Your task to perform on an android device: delete browsing data in the chrome app Image 0: 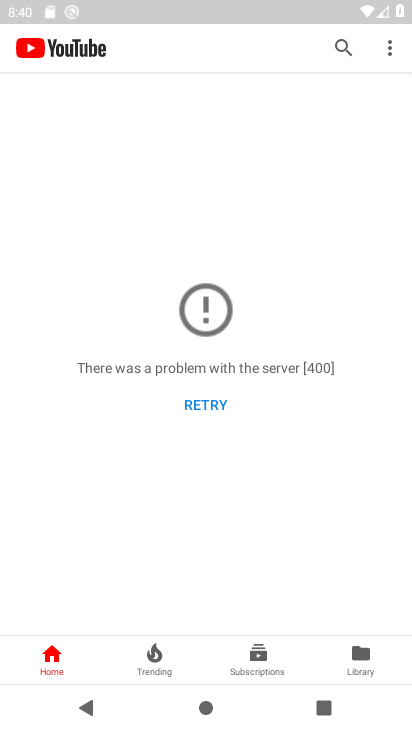
Step 0: press home button
Your task to perform on an android device: delete browsing data in the chrome app Image 1: 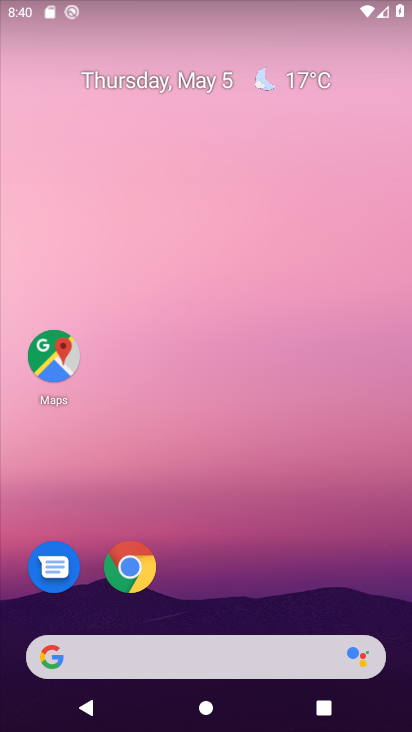
Step 1: drag from (230, 562) to (288, 20)
Your task to perform on an android device: delete browsing data in the chrome app Image 2: 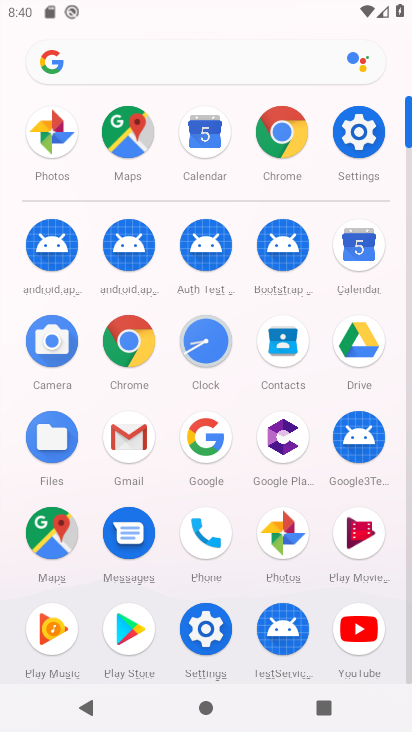
Step 2: click (278, 127)
Your task to perform on an android device: delete browsing data in the chrome app Image 3: 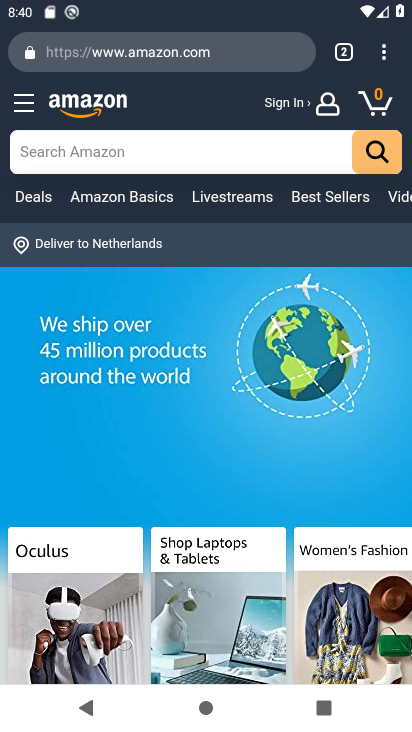
Step 3: drag from (383, 52) to (227, 285)
Your task to perform on an android device: delete browsing data in the chrome app Image 4: 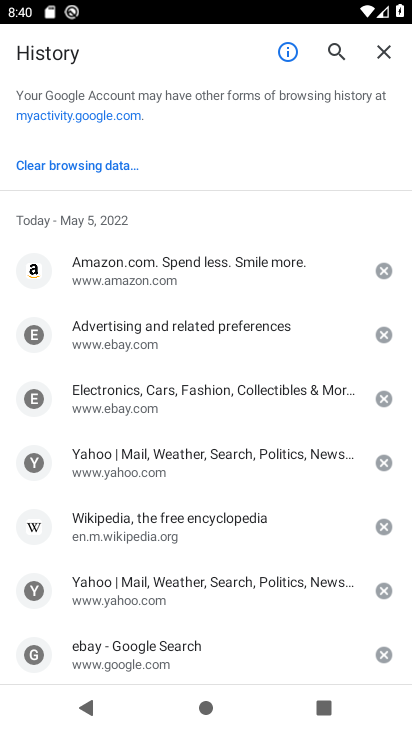
Step 4: click (124, 162)
Your task to perform on an android device: delete browsing data in the chrome app Image 5: 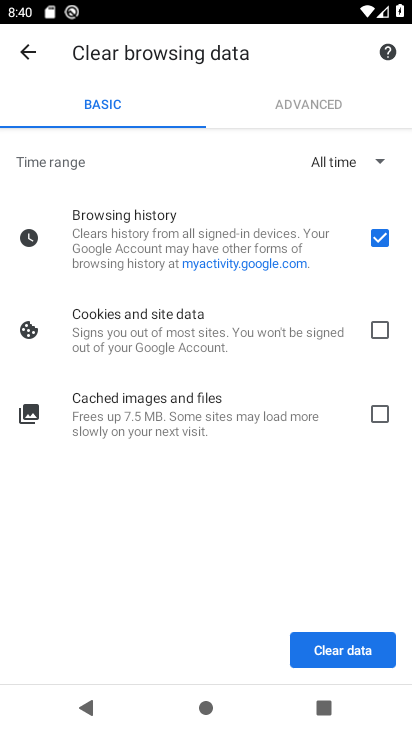
Step 5: click (381, 325)
Your task to perform on an android device: delete browsing data in the chrome app Image 6: 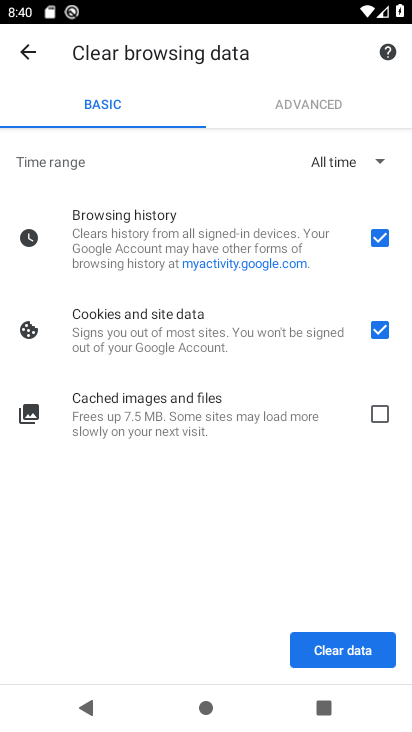
Step 6: click (375, 410)
Your task to perform on an android device: delete browsing data in the chrome app Image 7: 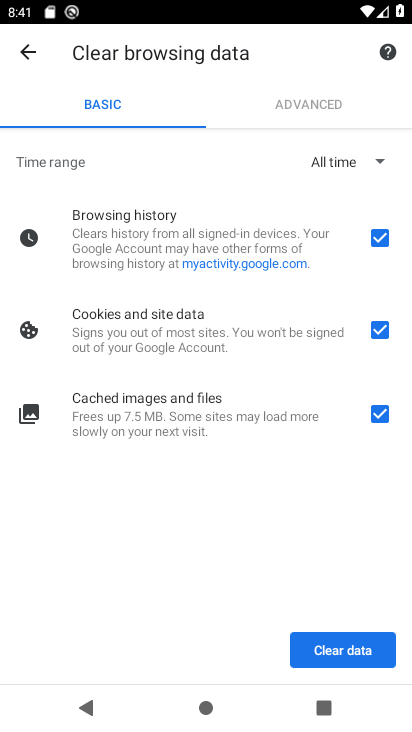
Step 7: click (342, 646)
Your task to perform on an android device: delete browsing data in the chrome app Image 8: 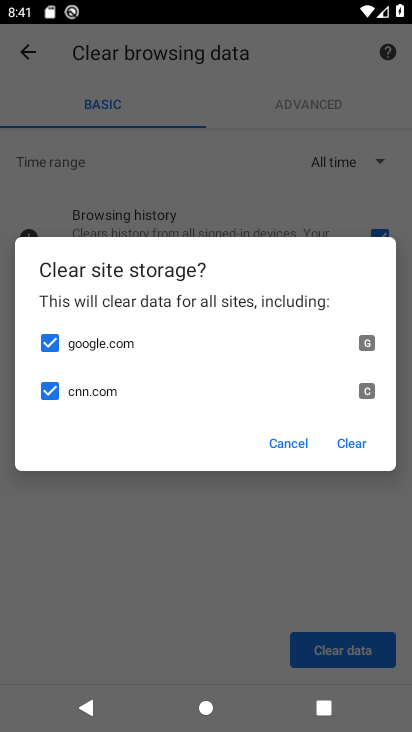
Step 8: click (350, 442)
Your task to perform on an android device: delete browsing data in the chrome app Image 9: 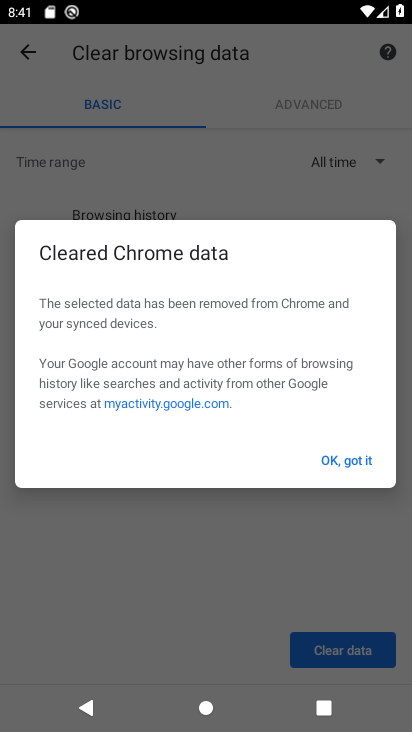
Step 9: click (361, 458)
Your task to perform on an android device: delete browsing data in the chrome app Image 10: 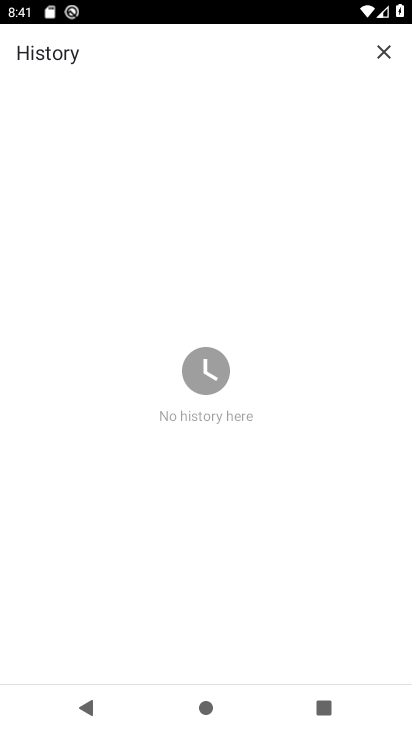
Step 10: task complete